Your task to perform on an android device: What is the recent news? Image 0: 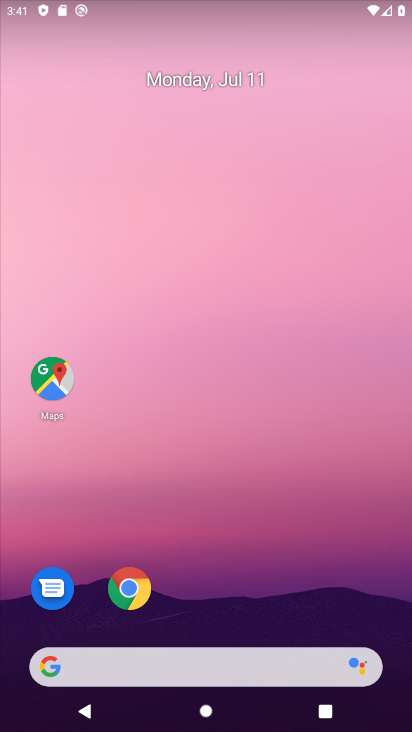
Step 0: drag from (187, 641) to (199, 169)
Your task to perform on an android device: What is the recent news? Image 1: 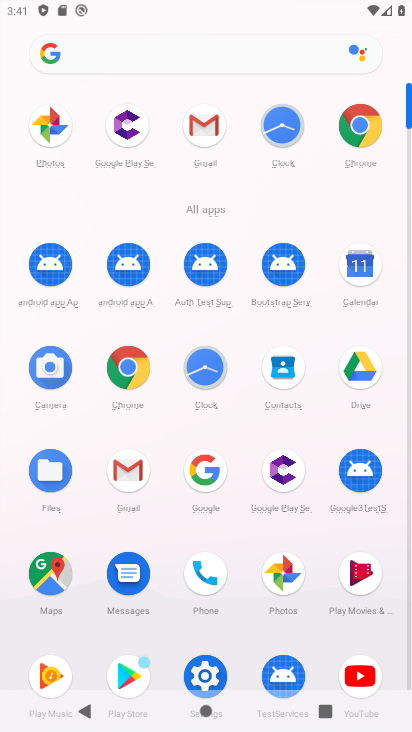
Step 1: click (214, 463)
Your task to perform on an android device: What is the recent news? Image 2: 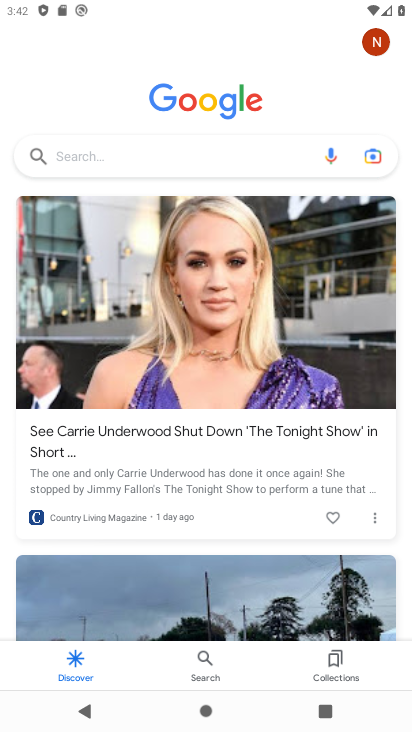
Step 2: task complete